Your task to perform on an android device: Go to internet settings Image 0: 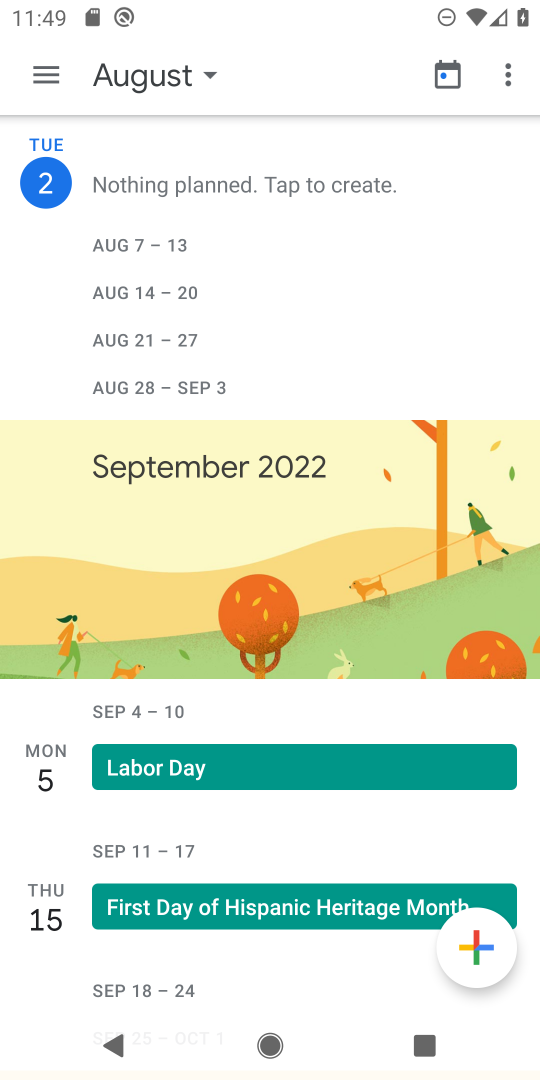
Step 0: press home button
Your task to perform on an android device: Go to internet settings Image 1: 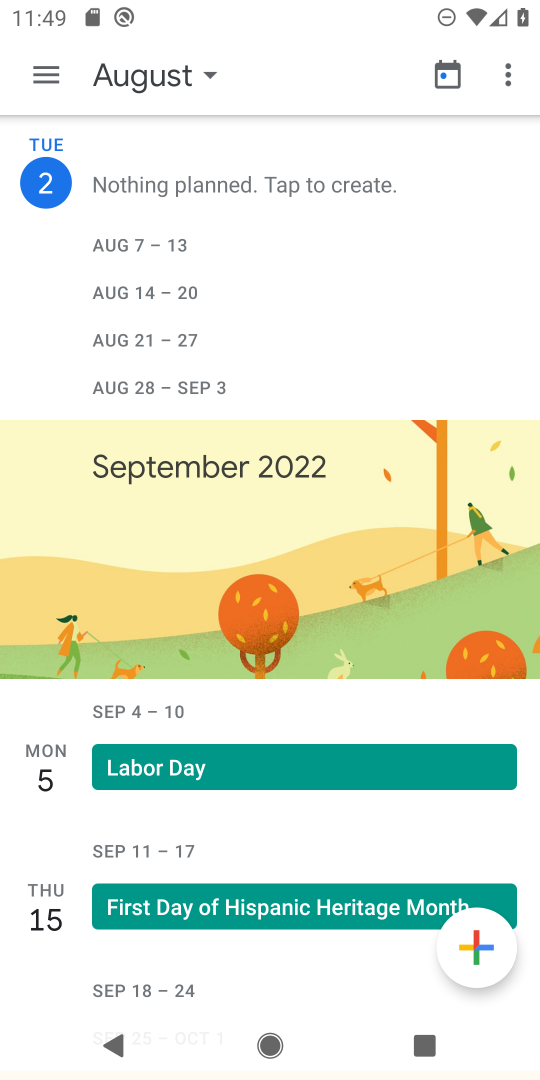
Step 1: press home button
Your task to perform on an android device: Go to internet settings Image 2: 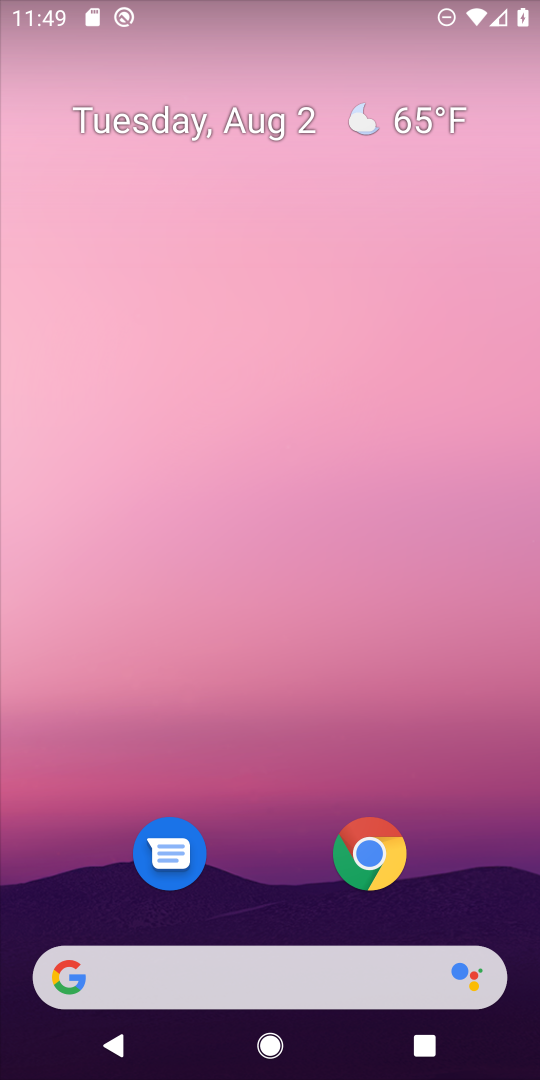
Step 2: drag from (238, 755) to (251, 257)
Your task to perform on an android device: Go to internet settings Image 3: 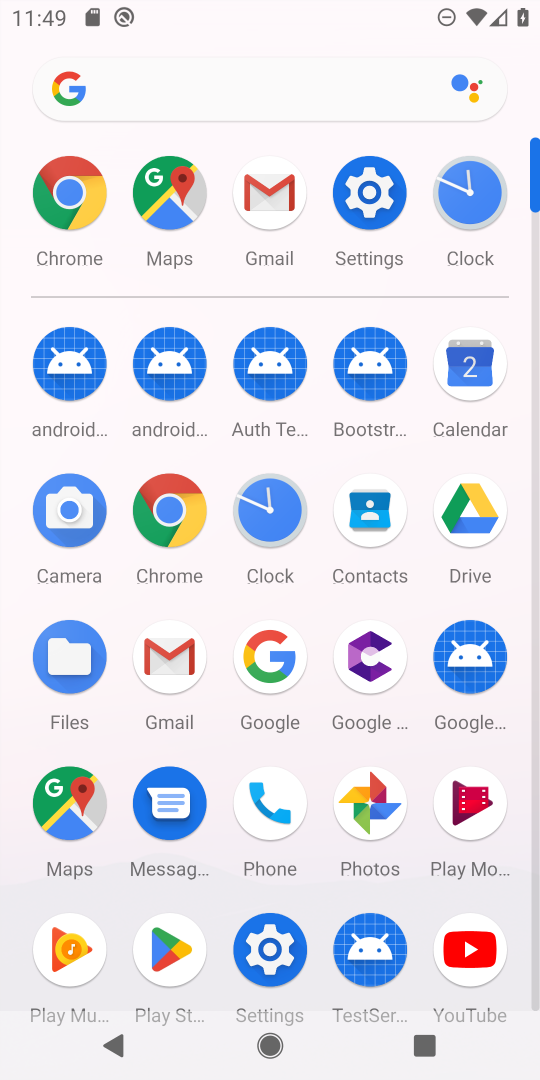
Step 3: click (280, 983)
Your task to perform on an android device: Go to internet settings Image 4: 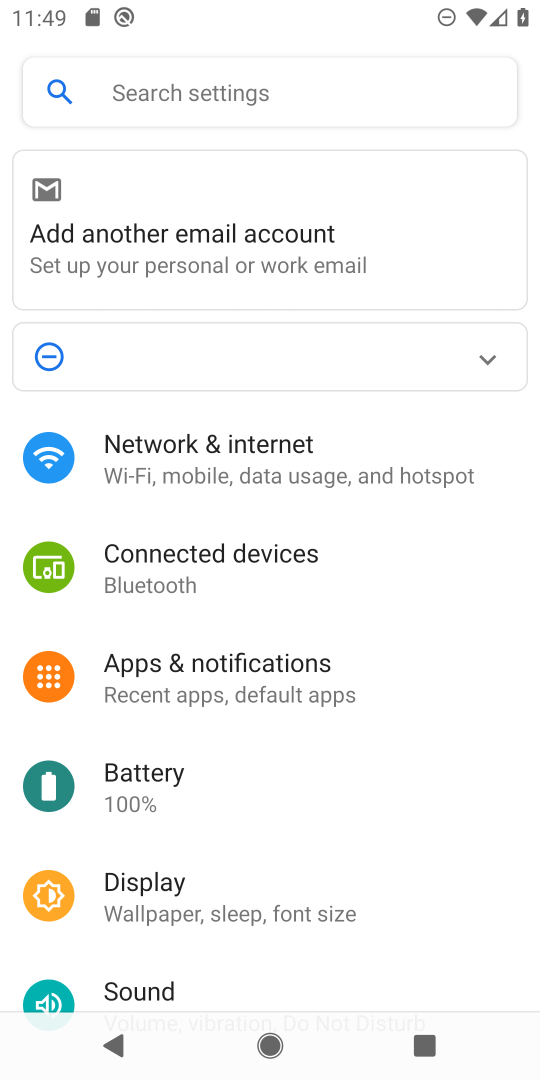
Step 4: click (268, 473)
Your task to perform on an android device: Go to internet settings Image 5: 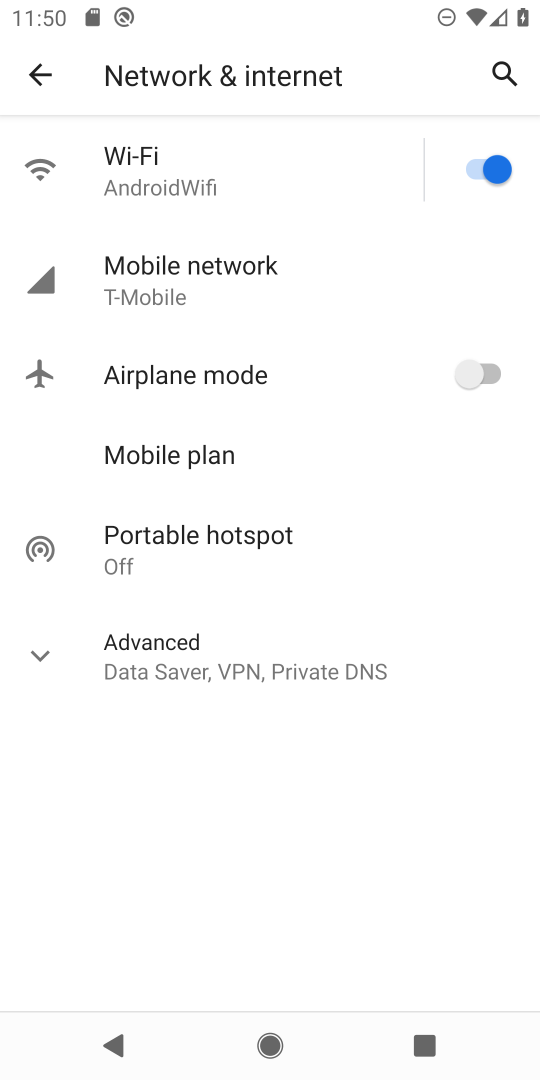
Step 5: task complete